Your task to perform on an android device: Check the news Image 0: 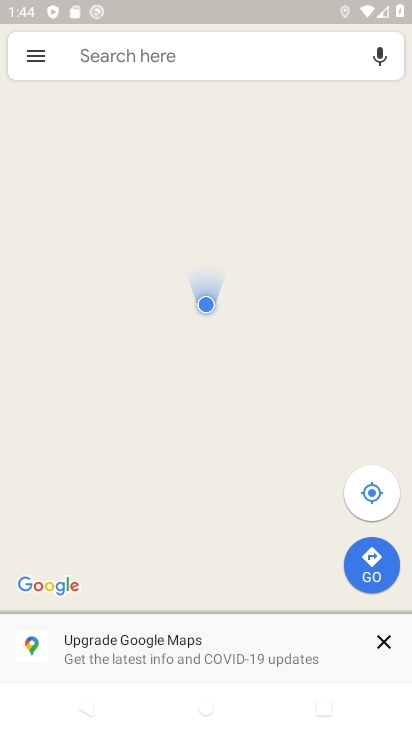
Step 0: press home button
Your task to perform on an android device: Check the news Image 1: 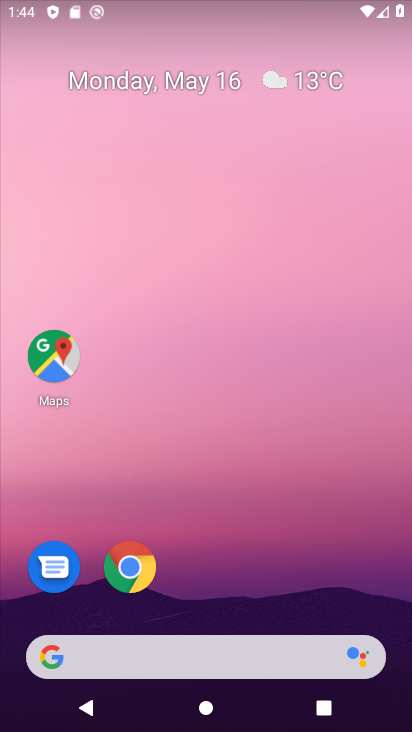
Step 1: task complete